Your task to perform on an android device: Open the web browser Image 0: 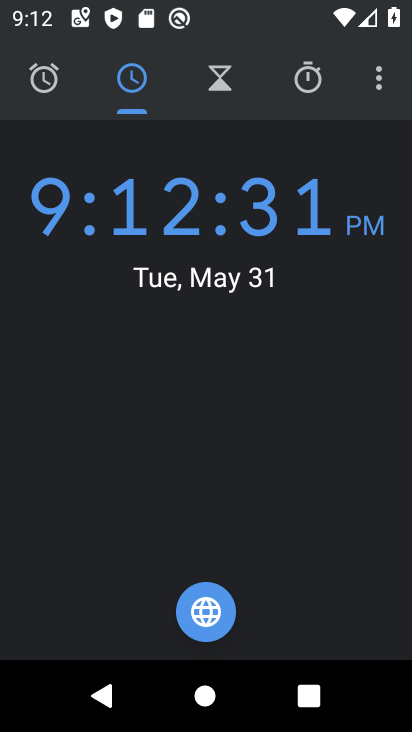
Step 0: press home button
Your task to perform on an android device: Open the web browser Image 1: 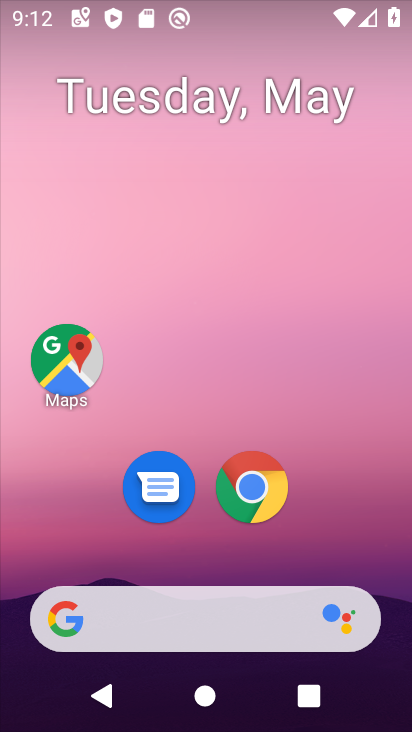
Step 1: drag from (383, 546) to (343, 219)
Your task to perform on an android device: Open the web browser Image 2: 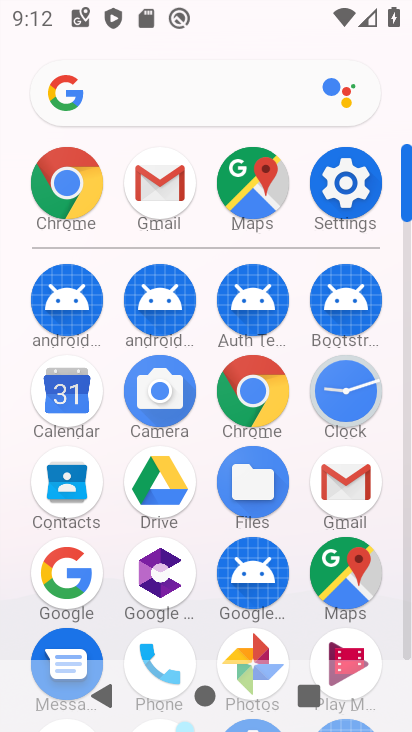
Step 2: click (264, 398)
Your task to perform on an android device: Open the web browser Image 3: 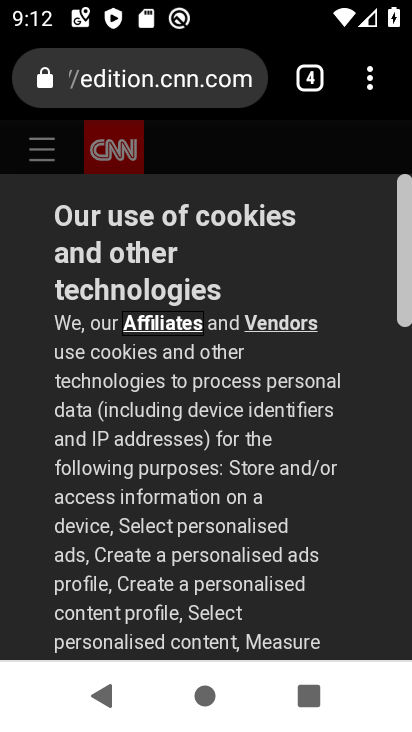
Step 3: task complete